Your task to perform on an android device: Add "acer predator" to the cart on ebay.com, then select checkout. Image 0: 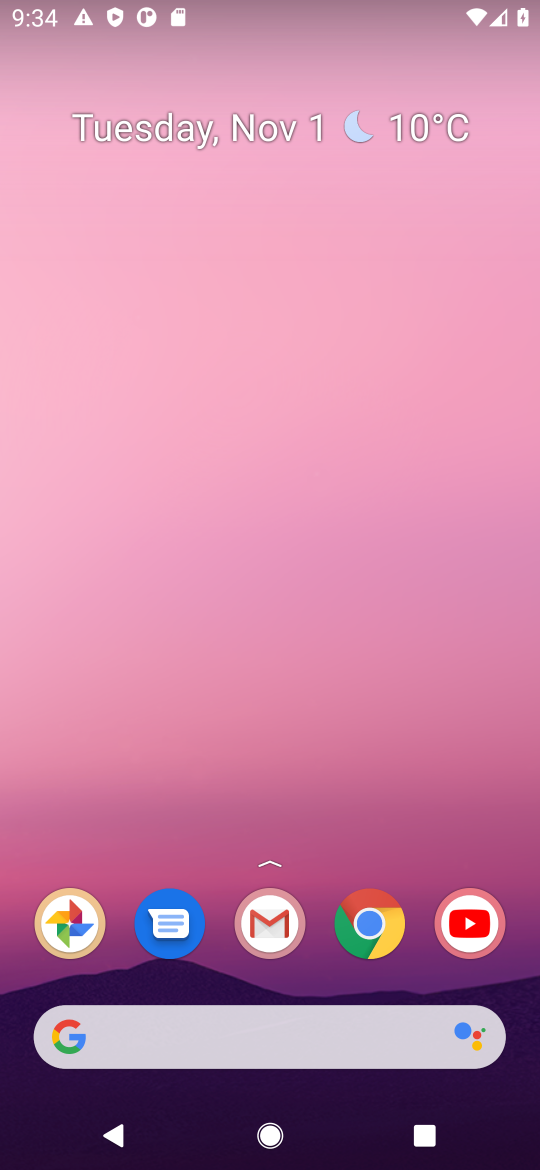
Step 0: drag from (330, 998) to (283, 182)
Your task to perform on an android device: Add "acer predator" to the cart on ebay.com, then select checkout. Image 1: 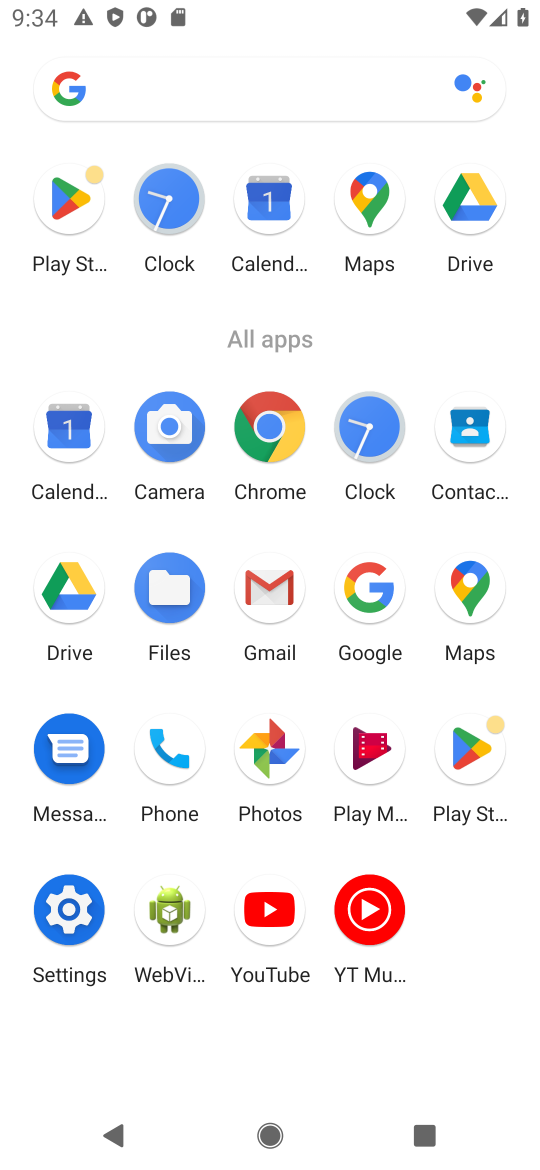
Step 1: click (275, 419)
Your task to perform on an android device: Add "acer predator" to the cart on ebay.com, then select checkout. Image 2: 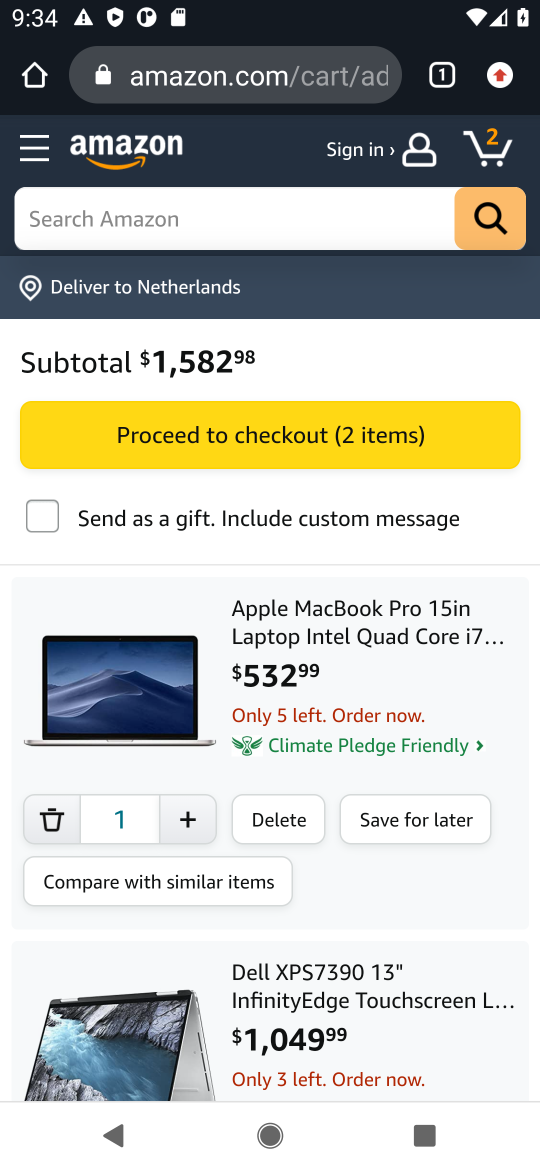
Step 2: click (253, 68)
Your task to perform on an android device: Add "acer predator" to the cart on ebay.com, then select checkout. Image 3: 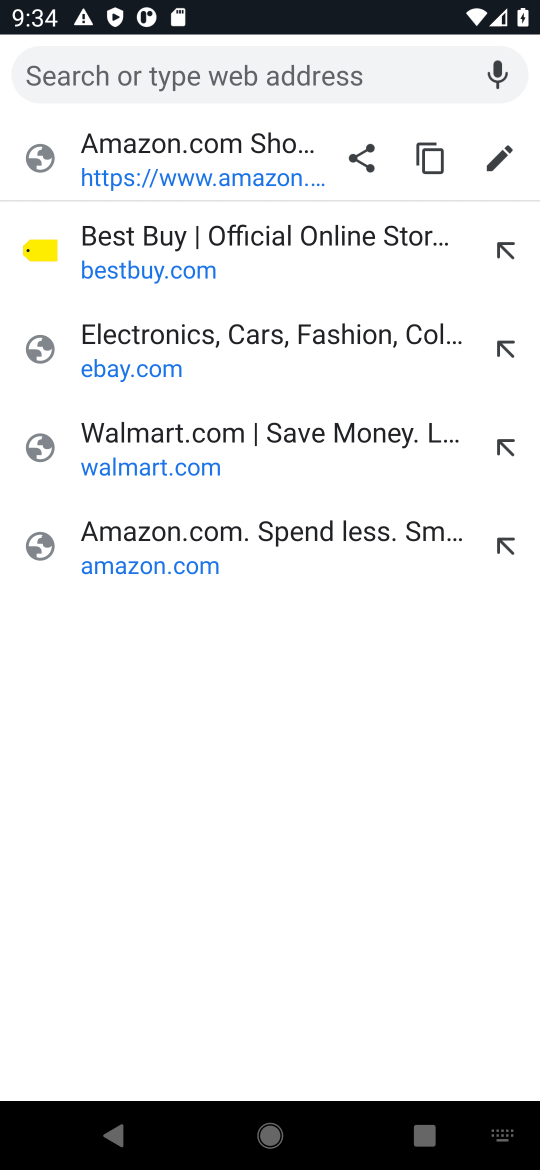
Step 3: type "ebay.com"
Your task to perform on an android device: Add "acer predator" to the cart on ebay.com, then select checkout. Image 4: 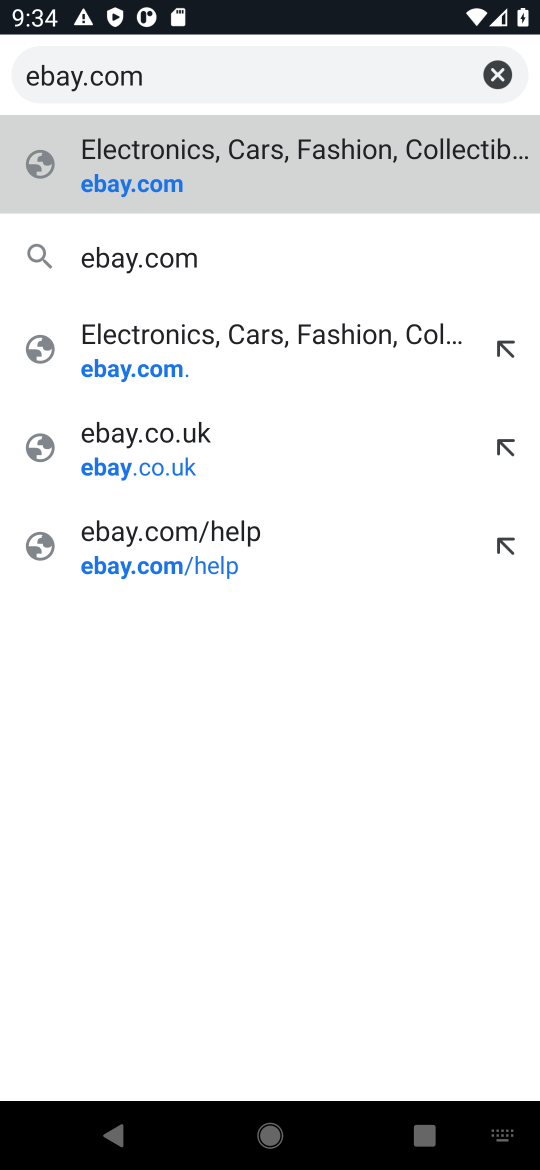
Step 4: press enter
Your task to perform on an android device: Add "acer predator" to the cart on ebay.com, then select checkout. Image 5: 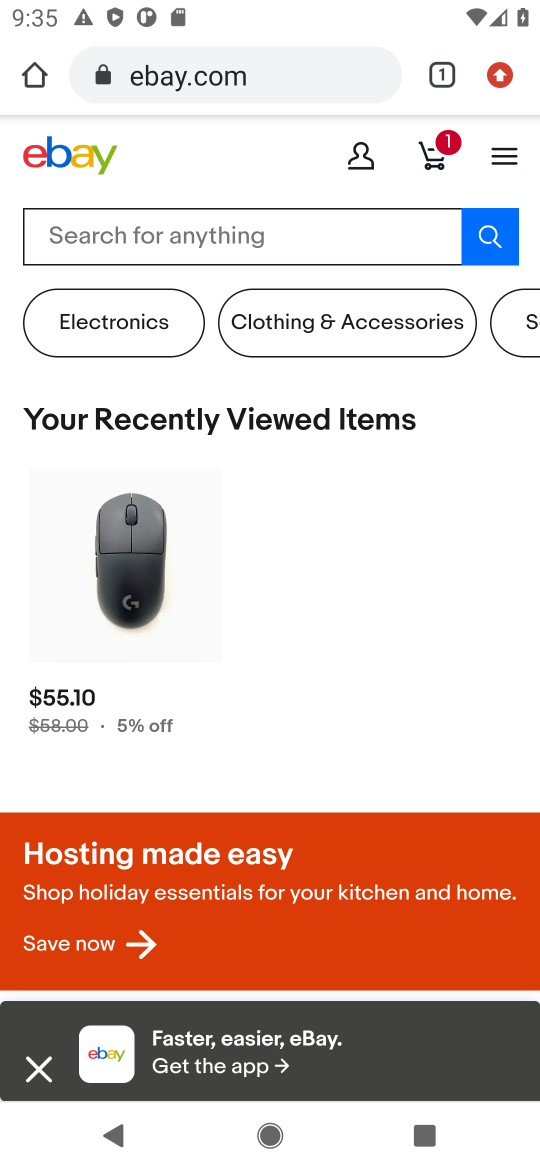
Step 5: click (279, 235)
Your task to perform on an android device: Add "acer predator" to the cart on ebay.com, then select checkout. Image 6: 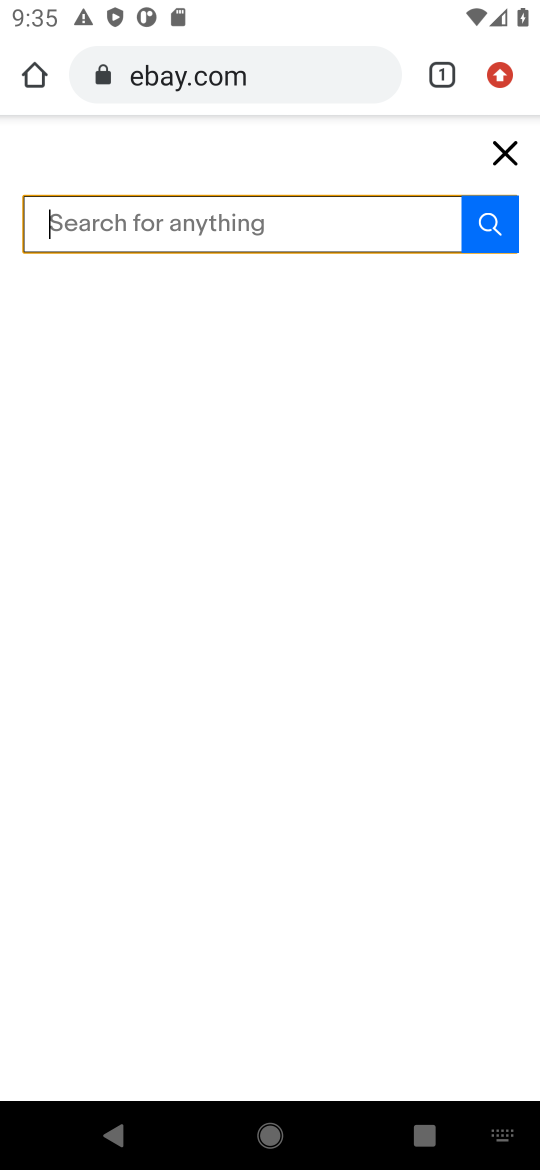
Step 6: type "acer predator"
Your task to perform on an android device: Add "acer predator" to the cart on ebay.com, then select checkout. Image 7: 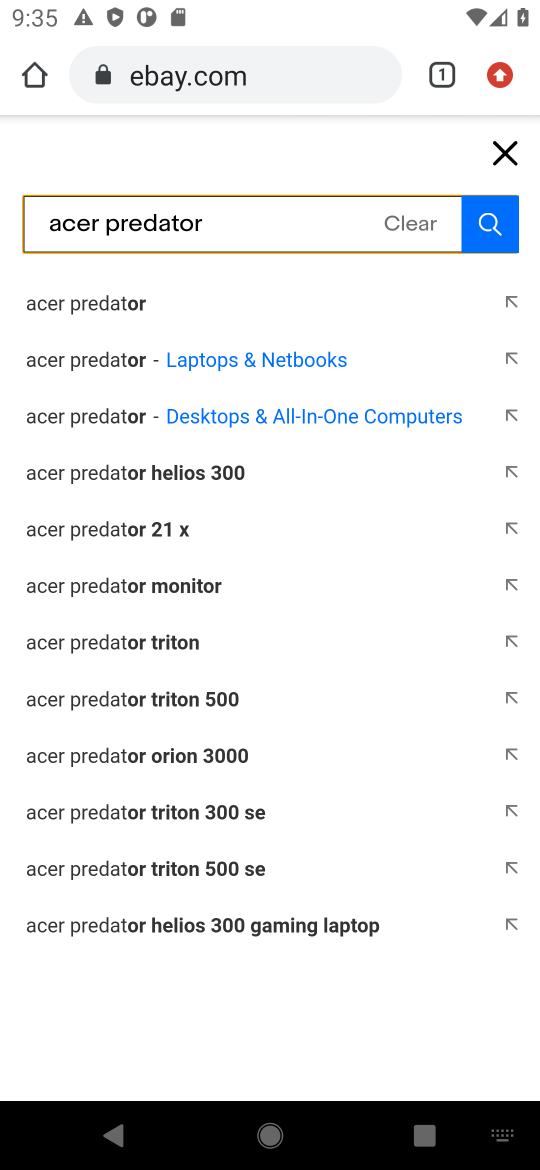
Step 7: press enter
Your task to perform on an android device: Add "acer predator" to the cart on ebay.com, then select checkout. Image 8: 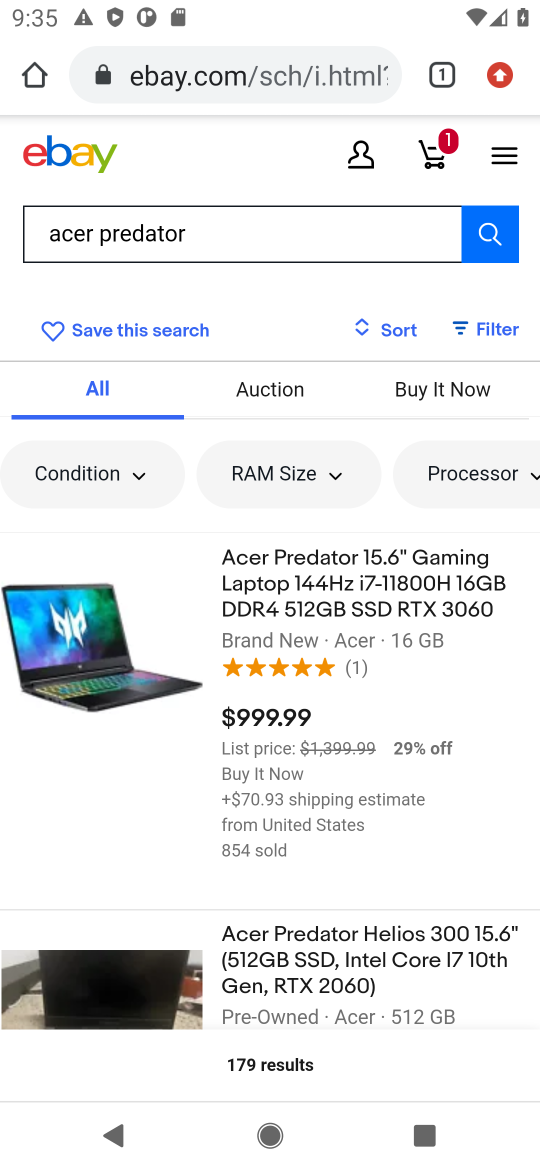
Step 8: click (384, 579)
Your task to perform on an android device: Add "acer predator" to the cart on ebay.com, then select checkout. Image 9: 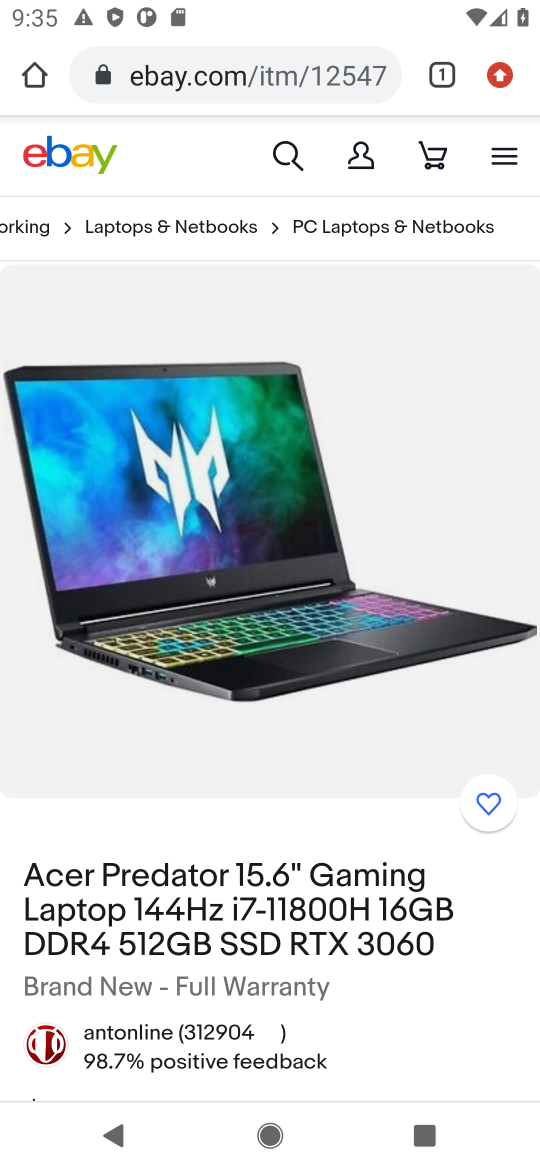
Step 9: drag from (406, 892) to (314, 260)
Your task to perform on an android device: Add "acer predator" to the cart on ebay.com, then select checkout. Image 10: 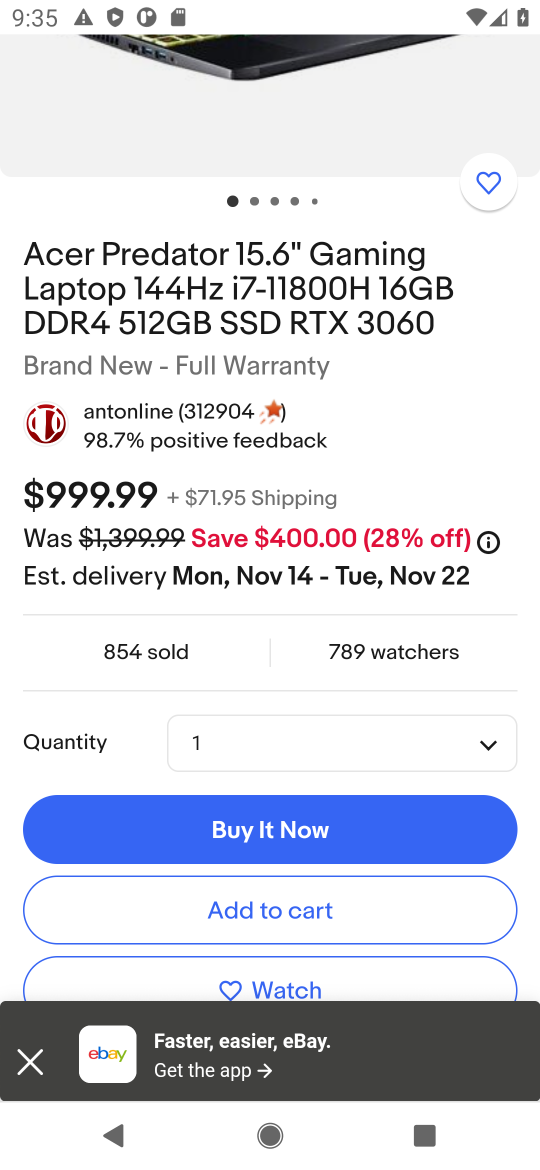
Step 10: click (358, 907)
Your task to perform on an android device: Add "acer predator" to the cart on ebay.com, then select checkout. Image 11: 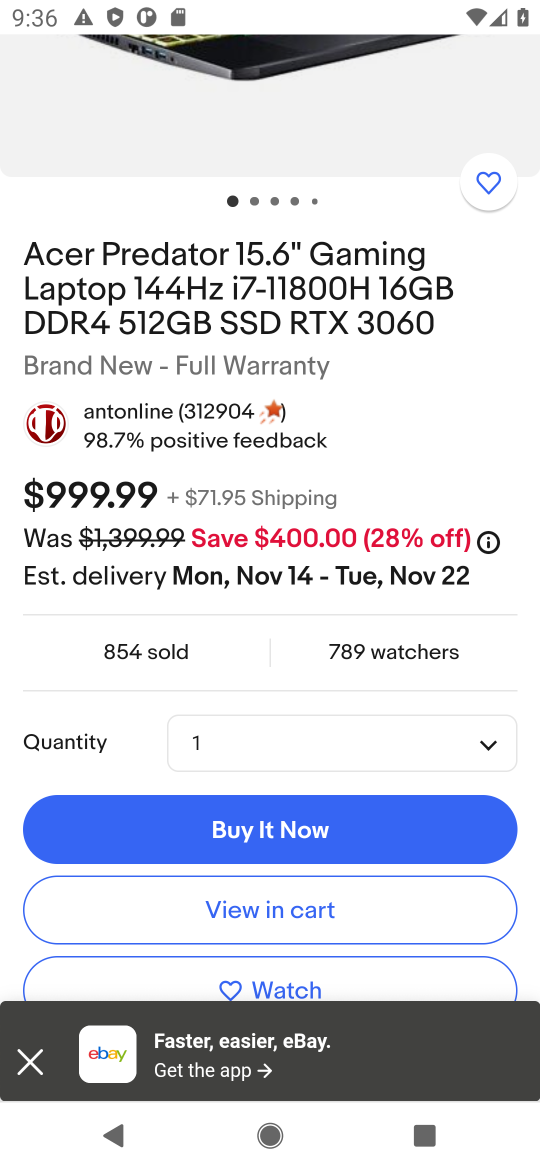
Step 11: click (352, 901)
Your task to perform on an android device: Add "acer predator" to the cart on ebay.com, then select checkout. Image 12: 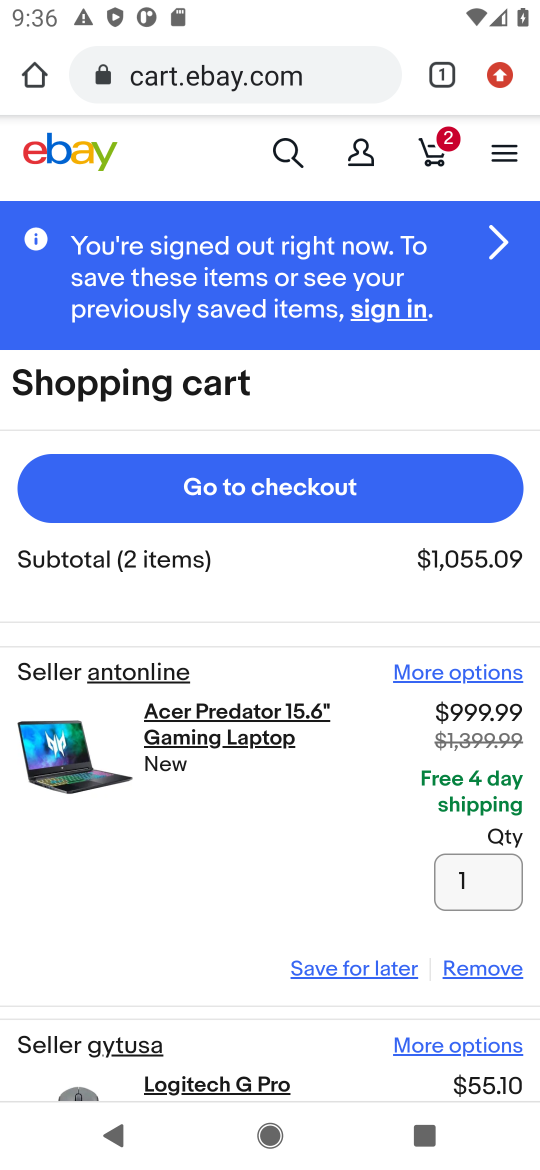
Step 12: click (350, 493)
Your task to perform on an android device: Add "acer predator" to the cart on ebay.com, then select checkout. Image 13: 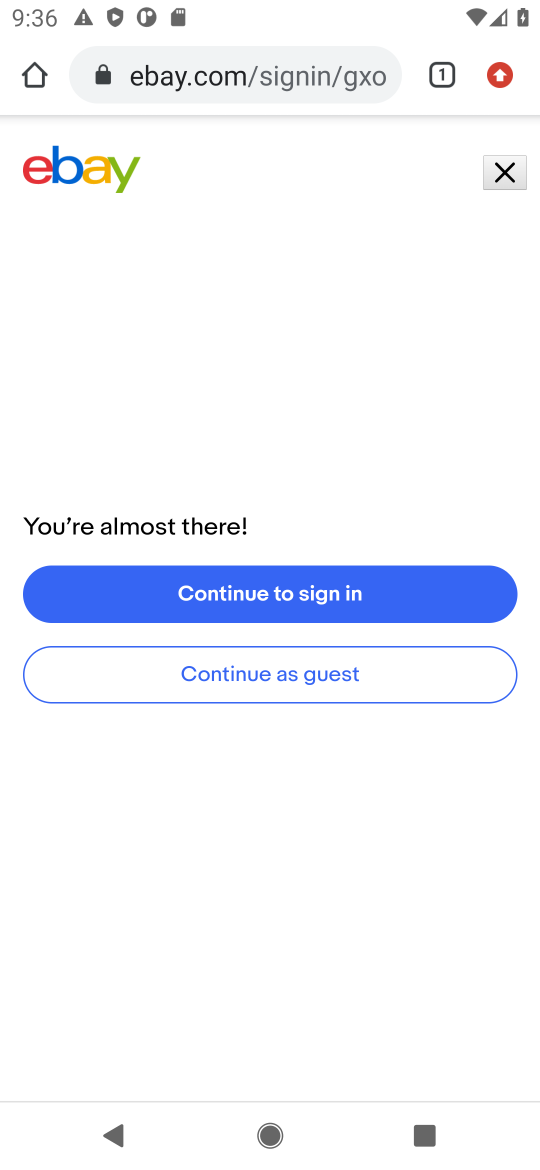
Step 13: task complete